Your task to perform on an android device: Open calendar and show me the third week of next month Image 0: 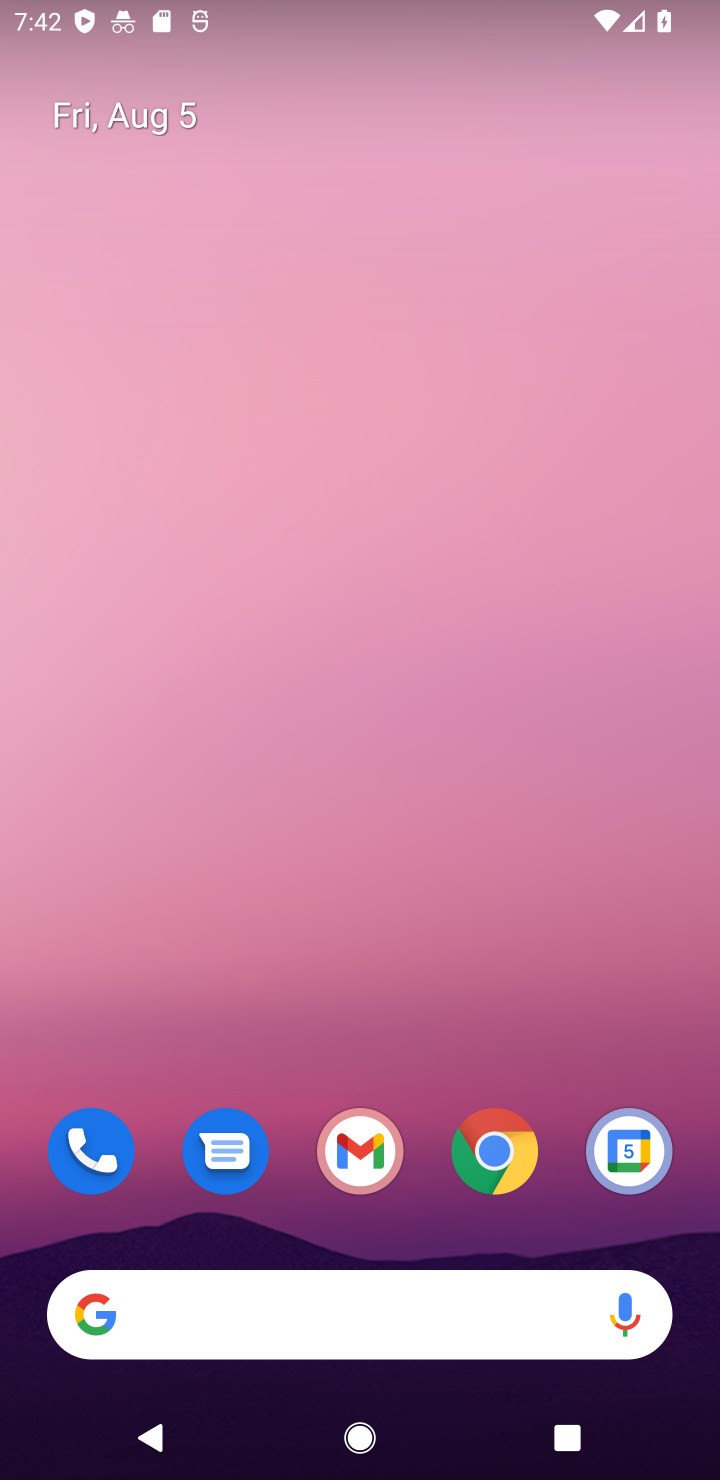
Step 0: drag from (458, 1241) to (447, 114)
Your task to perform on an android device: Open calendar and show me the third week of next month Image 1: 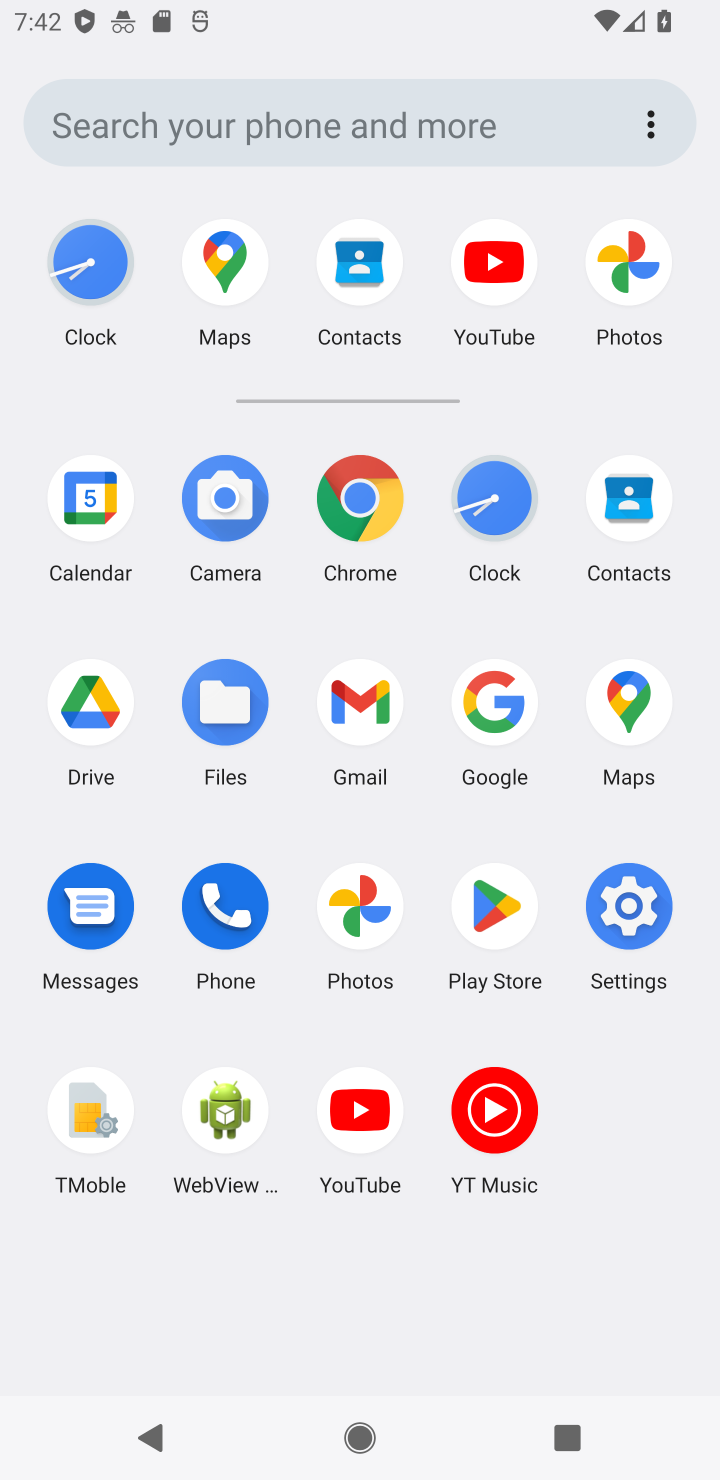
Step 1: click (101, 494)
Your task to perform on an android device: Open calendar and show me the third week of next month Image 2: 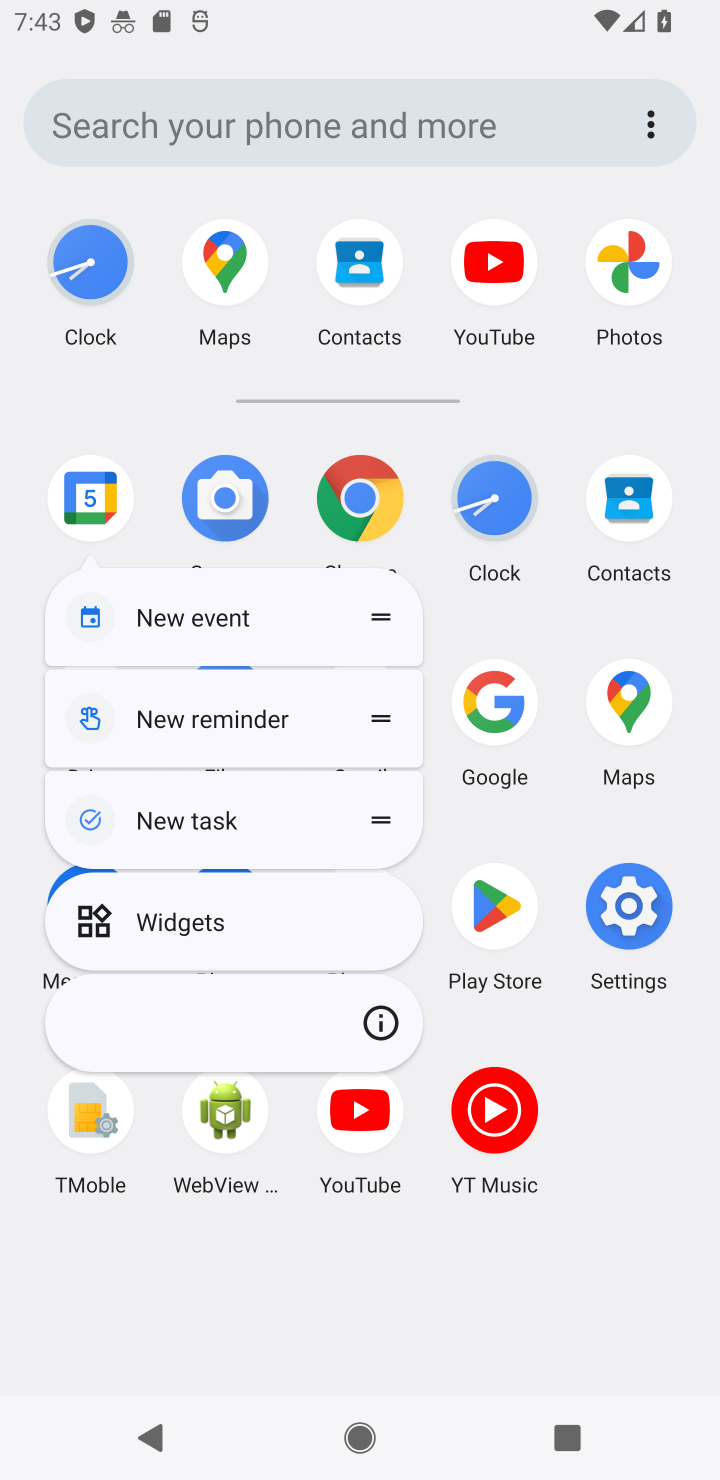
Step 2: click (90, 492)
Your task to perform on an android device: Open calendar and show me the third week of next month Image 3: 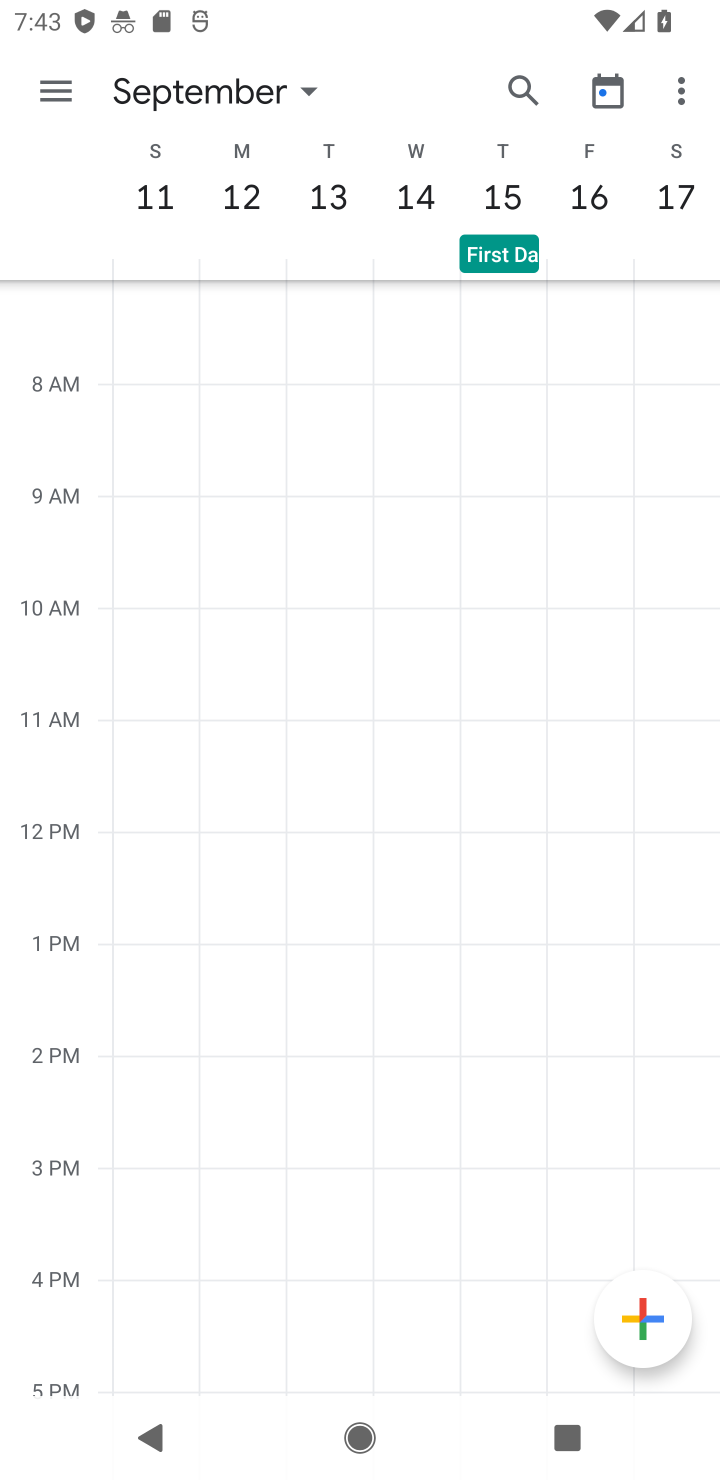
Step 3: task complete